Your task to perform on an android device: empty trash in the gmail app Image 0: 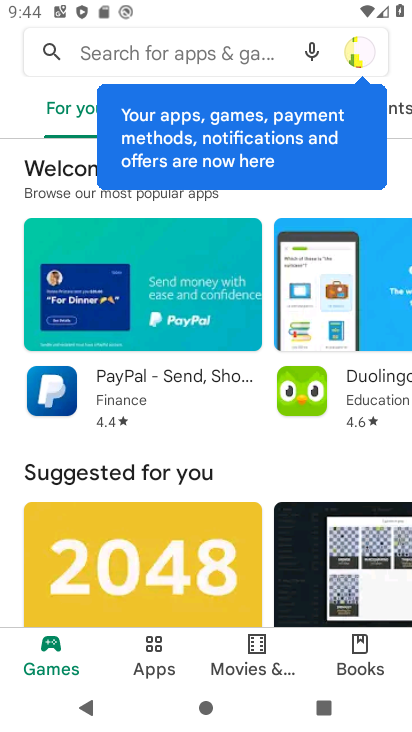
Step 0: press home button
Your task to perform on an android device: empty trash in the gmail app Image 1: 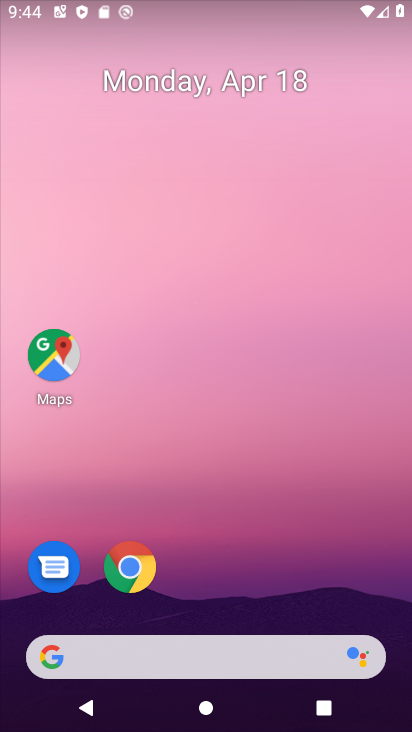
Step 1: drag from (310, 544) to (355, 111)
Your task to perform on an android device: empty trash in the gmail app Image 2: 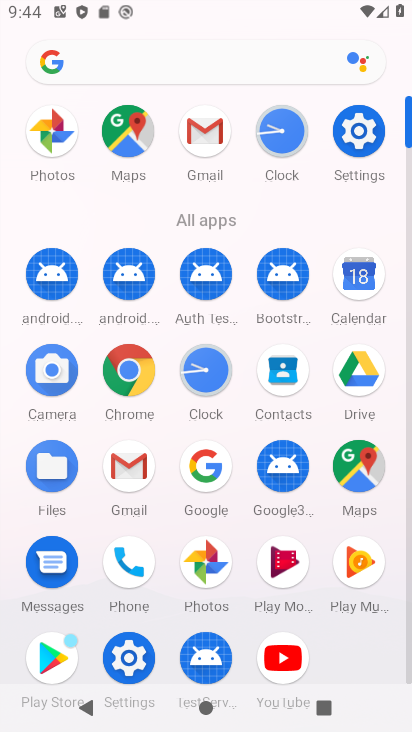
Step 2: click (131, 472)
Your task to perform on an android device: empty trash in the gmail app Image 3: 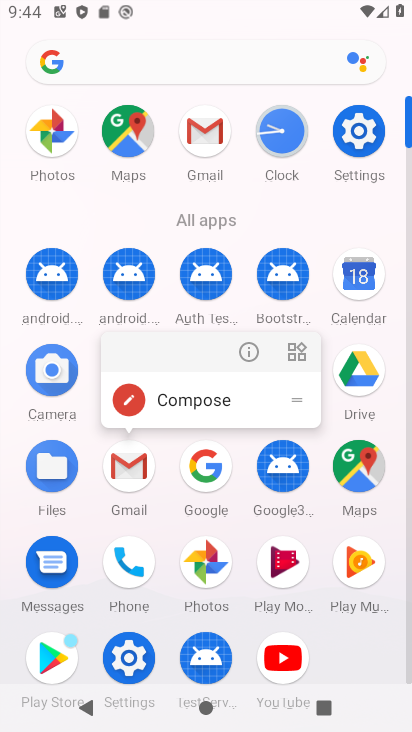
Step 3: click (132, 471)
Your task to perform on an android device: empty trash in the gmail app Image 4: 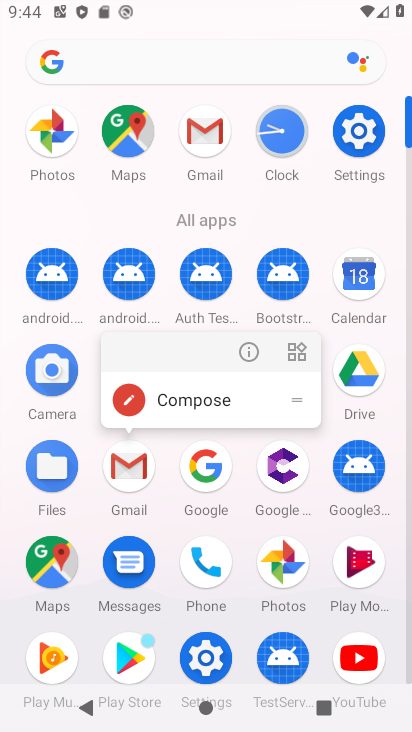
Step 4: click (133, 472)
Your task to perform on an android device: empty trash in the gmail app Image 5: 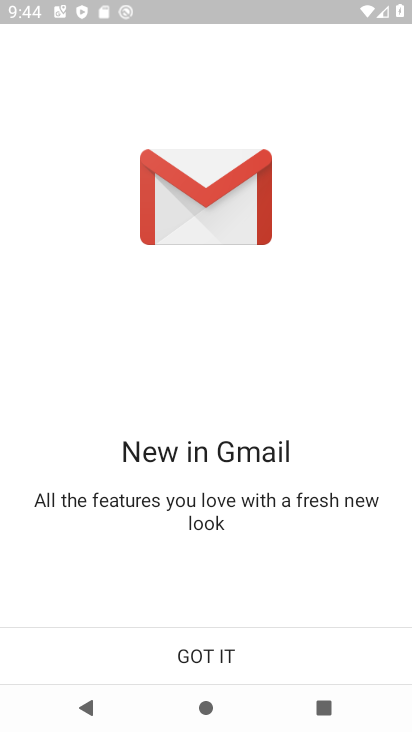
Step 5: click (192, 653)
Your task to perform on an android device: empty trash in the gmail app Image 6: 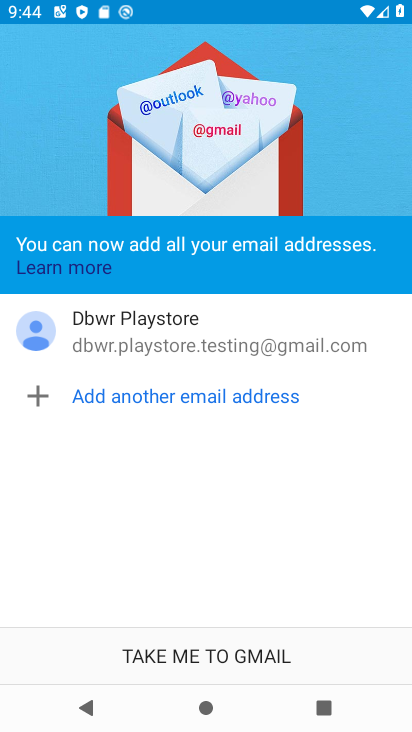
Step 6: click (202, 650)
Your task to perform on an android device: empty trash in the gmail app Image 7: 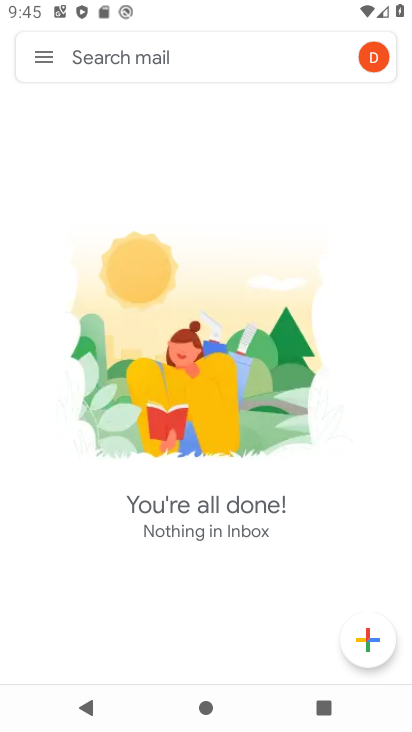
Step 7: click (46, 53)
Your task to perform on an android device: empty trash in the gmail app Image 8: 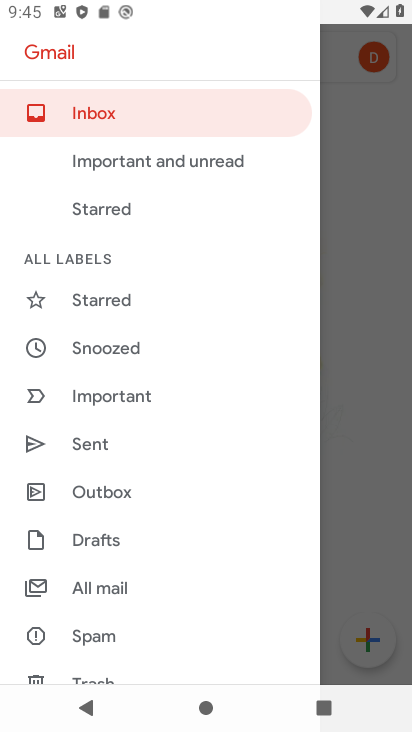
Step 8: drag from (168, 600) to (231, 296)
Your task to perform on an android device: empty trash in the gmail app Image 9: 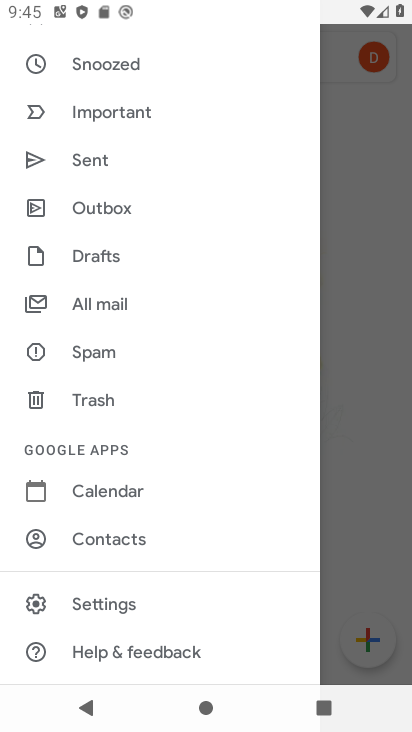
Step 9: click (91, 410)
Your task to perform on an android device: empty trash in the gmail app Image 10: 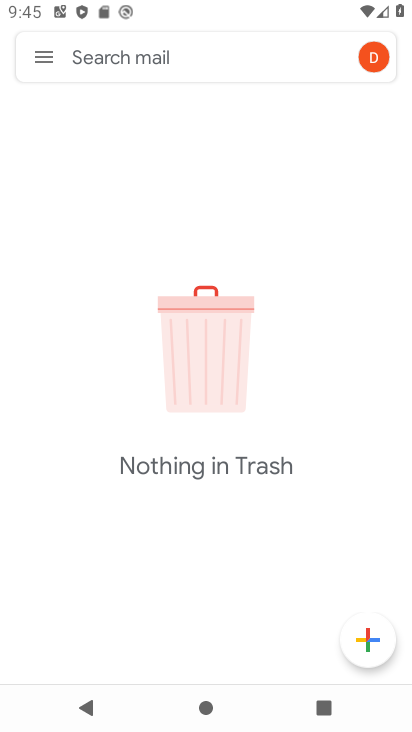
Step 10: task complete